Your task to perform on an android device: show emergency info Image 0: 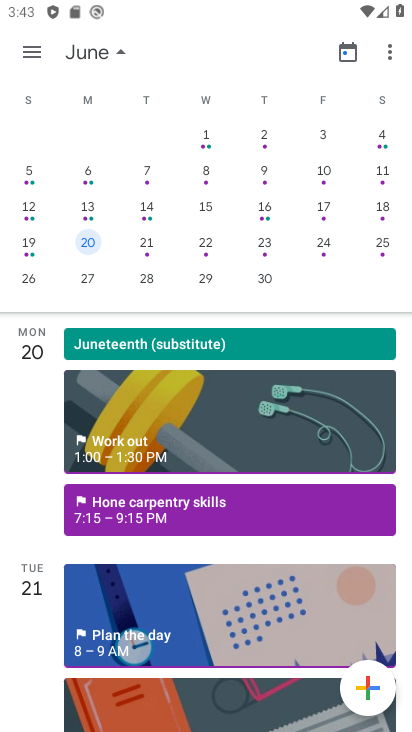
Step 0: press home button
Your task to perform on an android device: show emergency info Image 1: 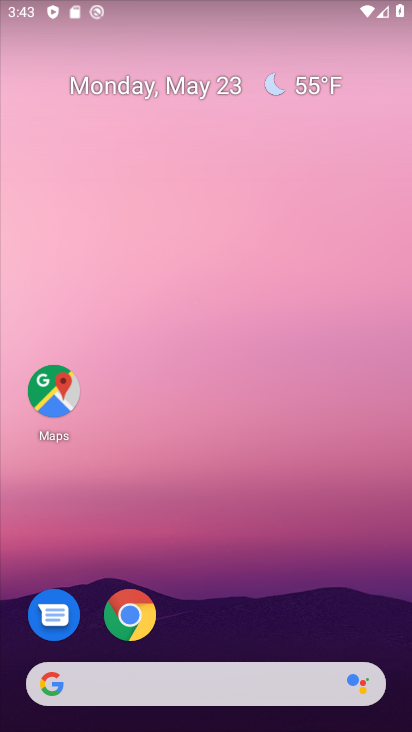
Step 1: drag from (315, 610) to (298, 119)
Your task to perform on an android device: show emergency info Image 2: 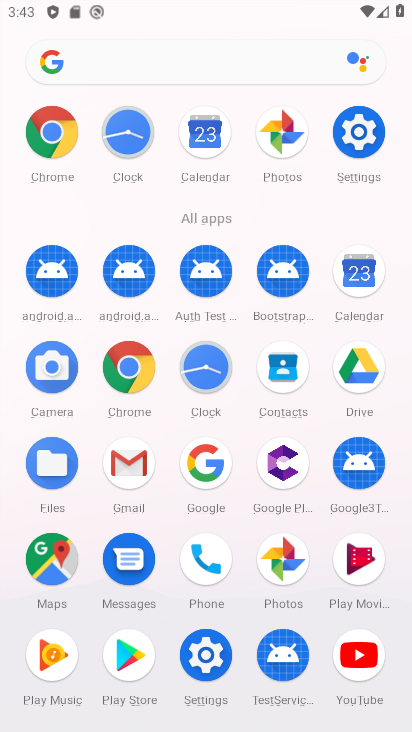
Step 2: click (356, 133)
Your task to perform on an android device: show emergency info Image 3: 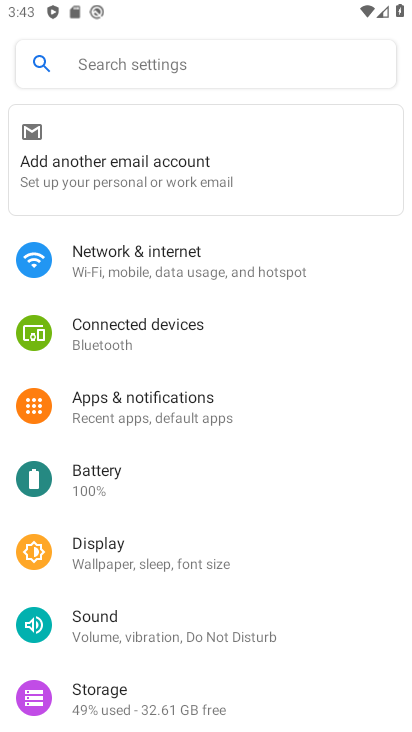
Step 3: drag from (348, 587) to (341, 380)
Your task to perform on an android device: show emergency info Image 4: 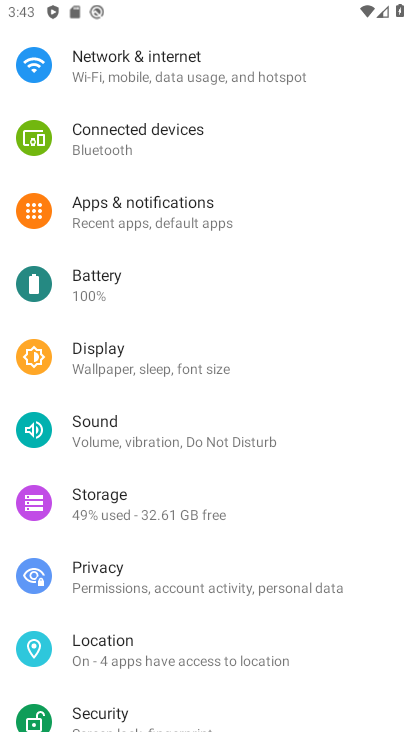
Step 4: drag from (348, 639) to (362, 476)
Your task to perform on an android device: show emergency info Image 5: 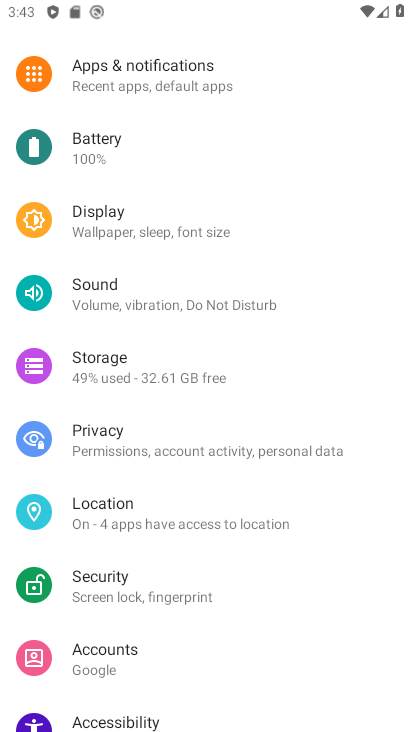
Step 5: drag from (352, 638) to (347, 472)
Your task to perform on an android device: show emergency info Image 6: 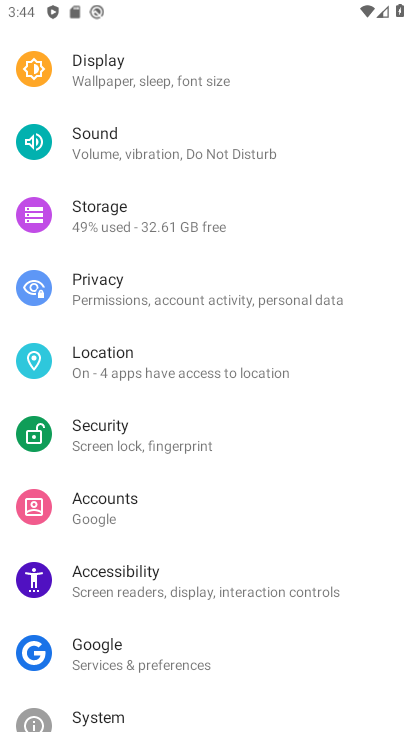
Step 6: drag from (347, 637) to (348, 477)
Your task to perform on an android device: show emergency info Image 7: 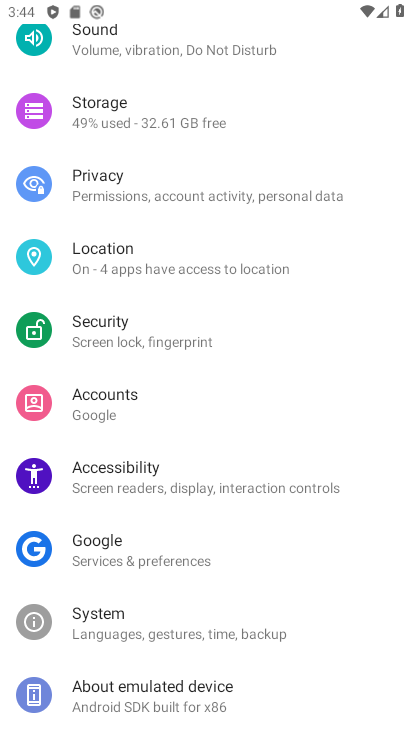
Step 7: drag from (336, 642) to (343, 428)
Your task to perform on an android device: show emergency info Image 8: 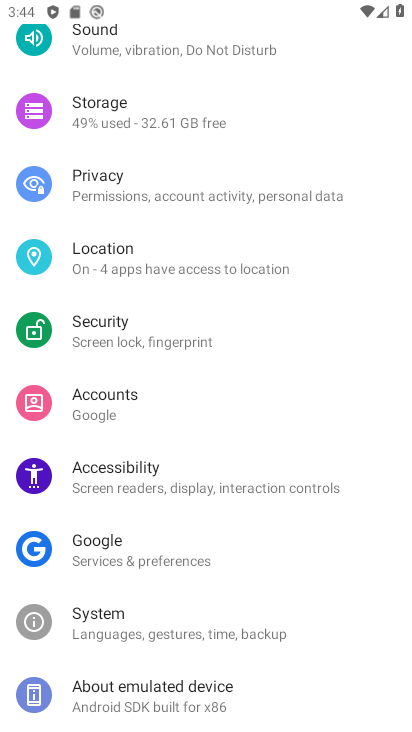
Step 8: drag from (366, 335) to (346, 534)
Your task to perform on an android device: show emergency info Image 9: 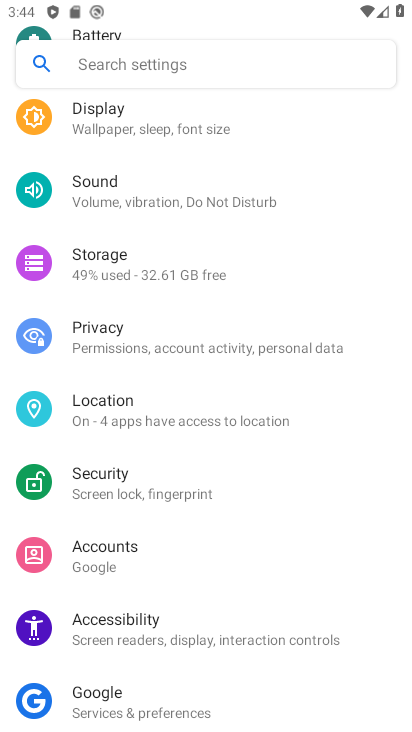
Step 9: drag from (353, 379) to (353, 538)
Your task to perform on an android device: show emergency info Image 10: 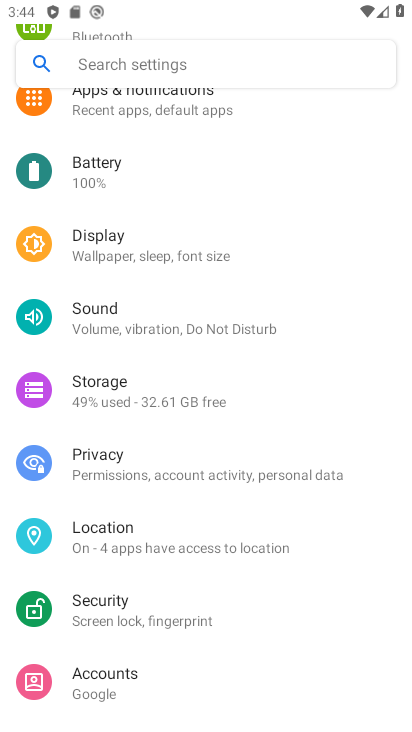
Step 10: drag from (359, 370) to (353, 534)
Your task to perform on an android device: show emergency info Image 11: 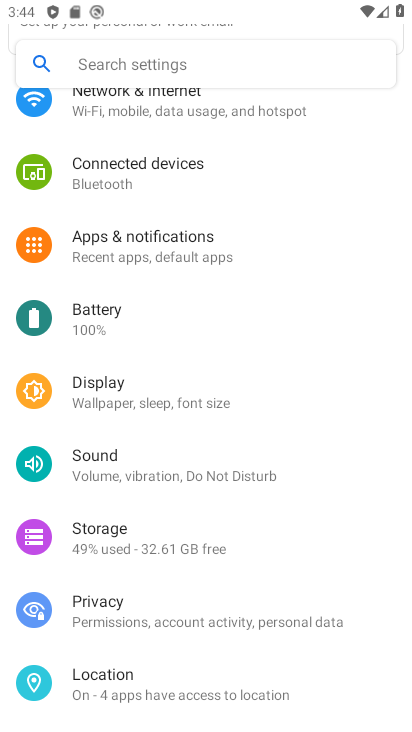
Step 11: drag from (351, 340) to (349, 531)
Your task to perform on an android device: show emergency info Image 12: 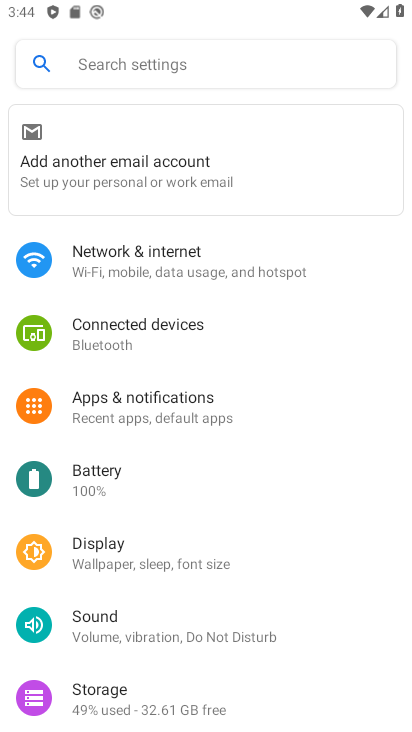
Step 12: drag from (350, 352) to (348, 506)
Your task to perform on an android device: show emergency info Image 13: 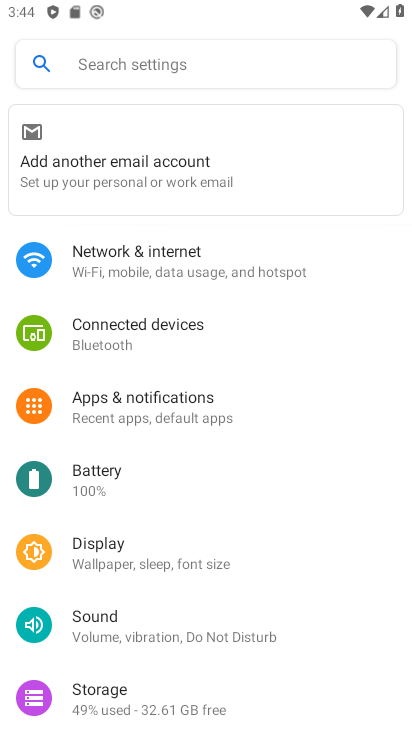
Step 13: drag from (367, 629) to (368, 479)
Your task to perform on an android device: show emergency info Image 14: 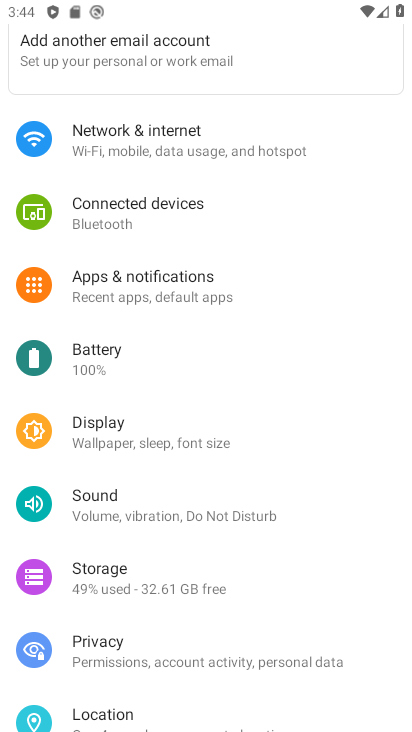
Step 14: drag from (363, 661) to (363, 490)
Your task to perform on an android device: show emergency info Image 15: 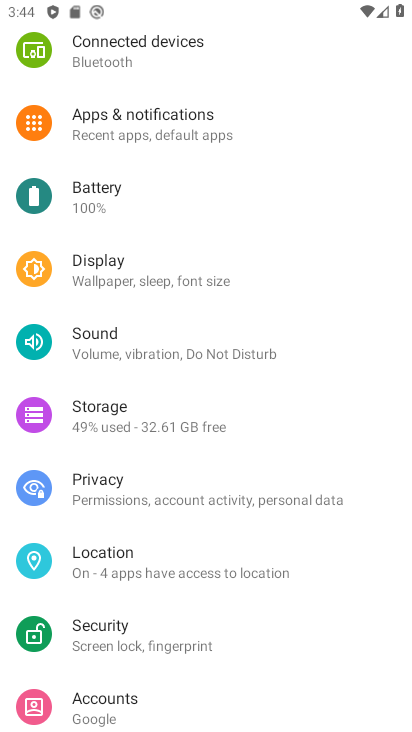
Step 15: drag from (339, 645) to (337, 517)
Your task to perform on an android device: show emergency info Image 16: 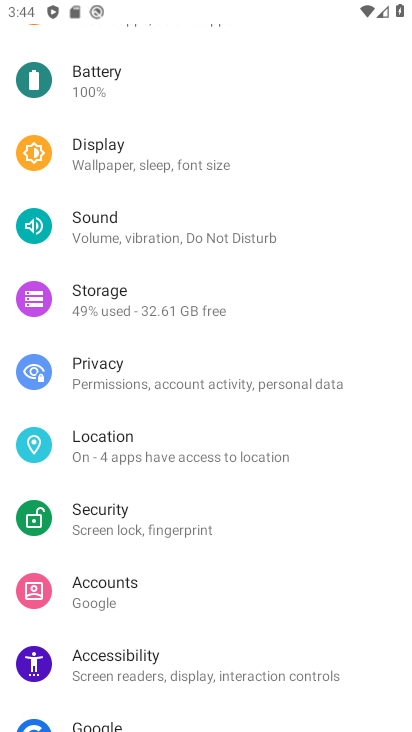
Step 16: drag from (363, 687) to (367, 490)
Your task to perform on an android device: show emergency info Image 17: 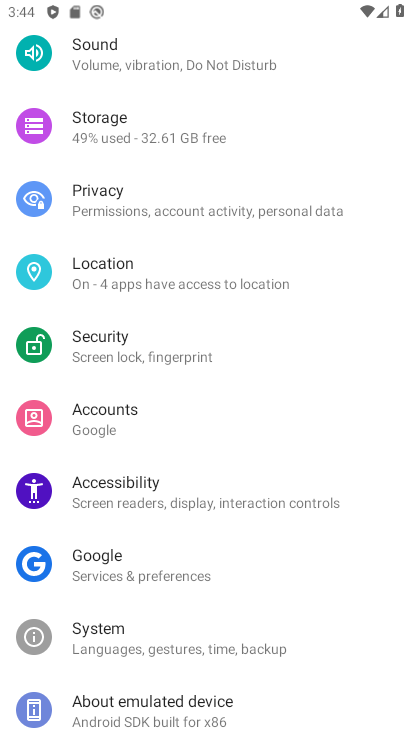
Step 17: drag from (362, 669) to (361, 519)
Your task to perform on an android device: show emergency info Image 18: 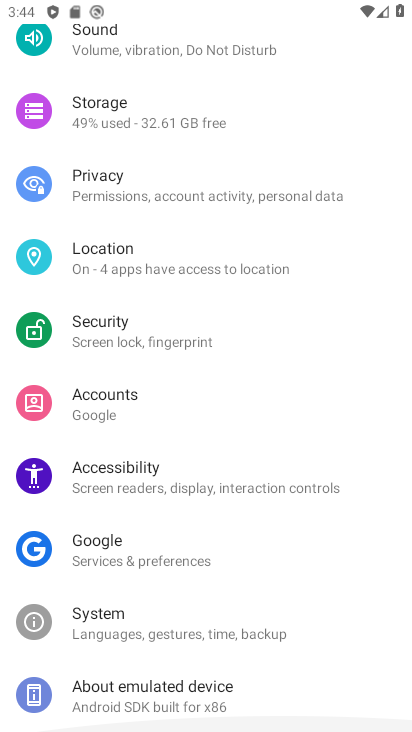
Step 18: drag from (345, 404) to (338, 591)
Your task to perform on an android device: show emergency info Image 19: 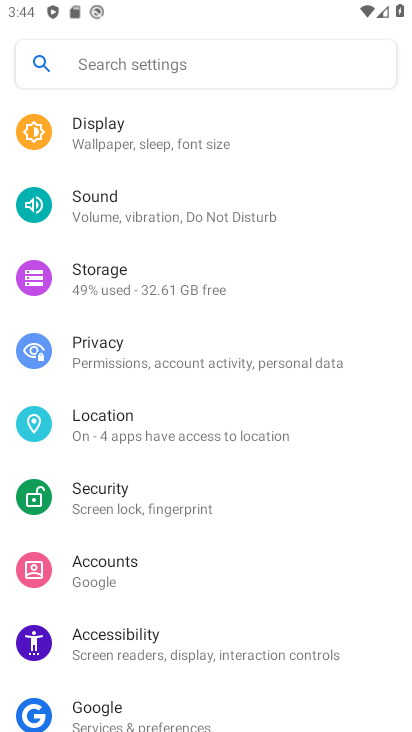
Step 19: drag from (348, 680) to (345, 460)
Your task to perform on an android device: show emergency info Image 20: 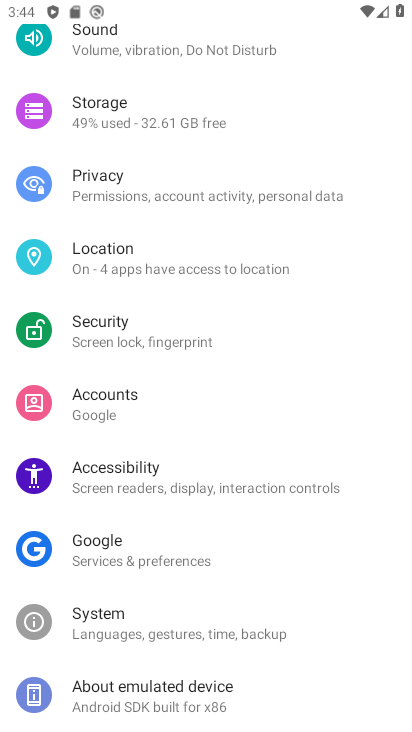
Step 20: click (188, 703)
Your task to perform on an android device: show emergency info Image 21: 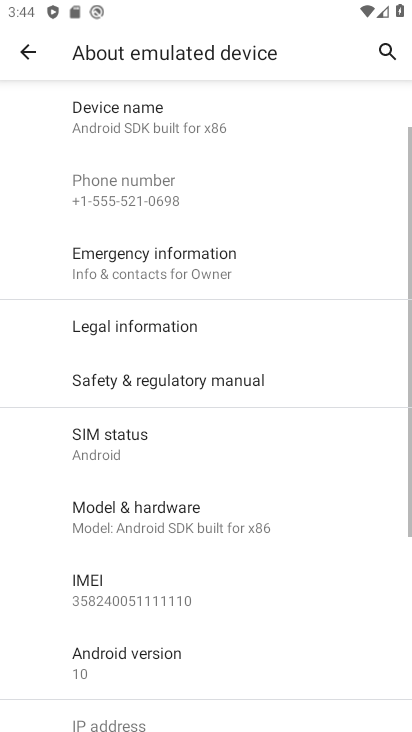
Step 21: click (217, 251)
Your task to perform on an android device: show emergency info Image 22: 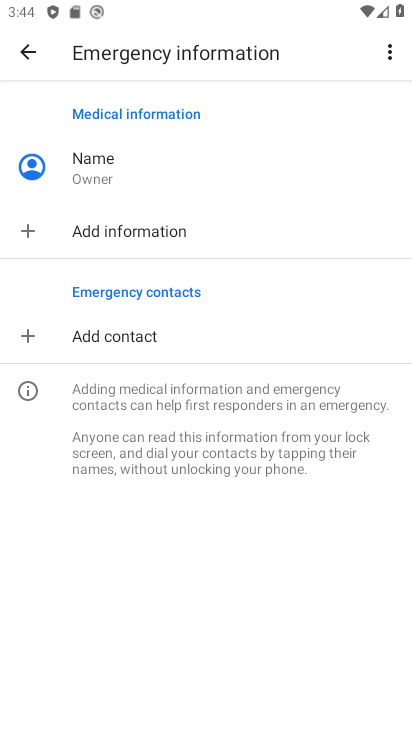
Step 22: task complete